Your task to perform on an android device: set default search engine in the chrome app Image 0: 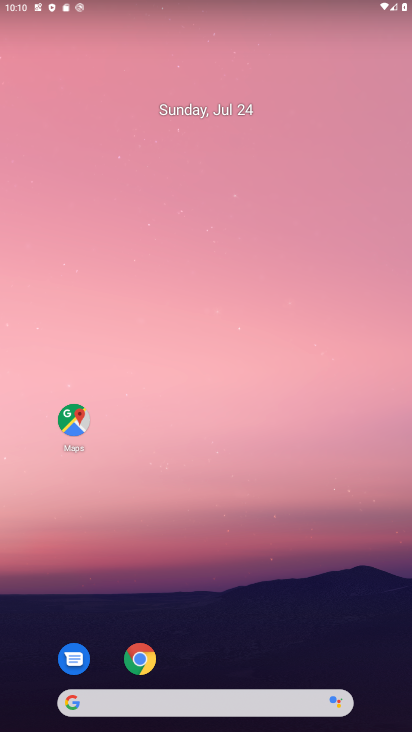
Step 0: click (138, 661)
Your task to perform on an android device: set default search engine in the chrome app Image 1: 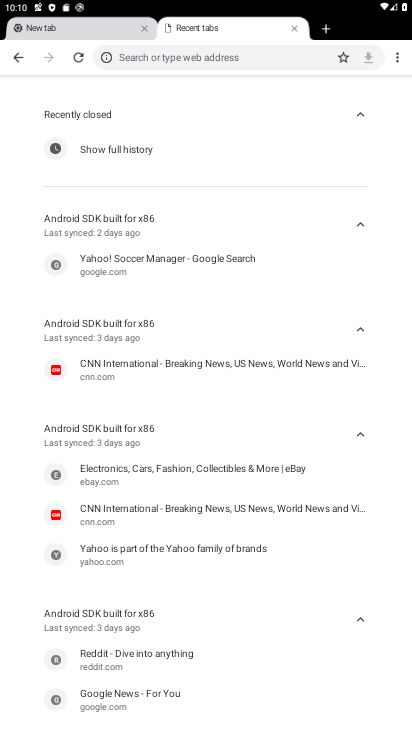
Step 1: click (395, 55)
Your task to perform on an android device: set default search engine in the chrome app Image 2: 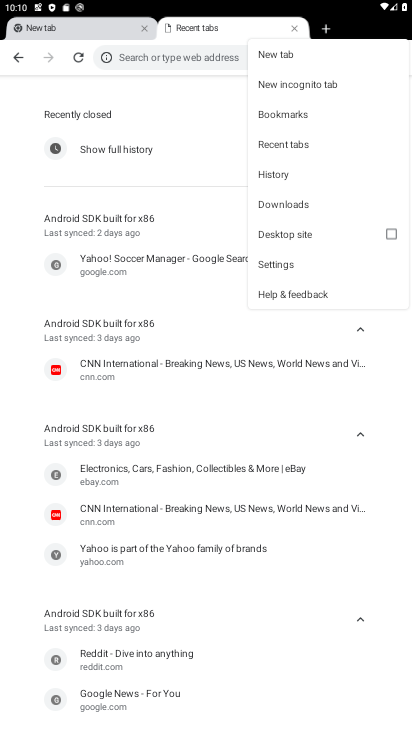
Step 2: click (270, 264)
Your task to perform on an android device: set default search engine in the chrome app Image 3: 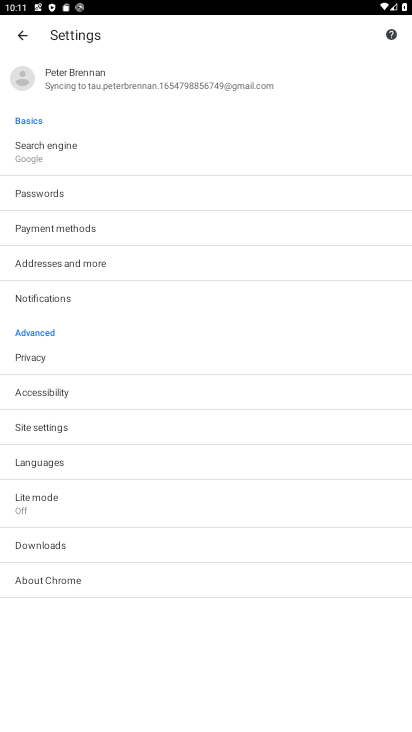
Step 3: click (58, 148)
Your task to perform on an android device: set default search engine in the chrome app Image 4: 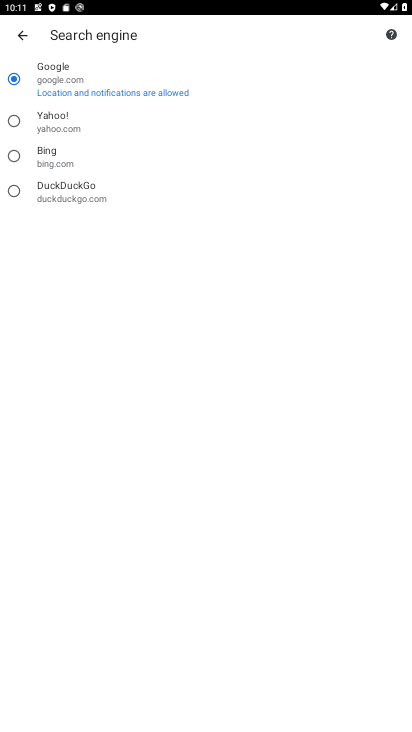
Step 4: task complete